Your task to perform on an android device: turn off data saver in the chrome app Image 0: 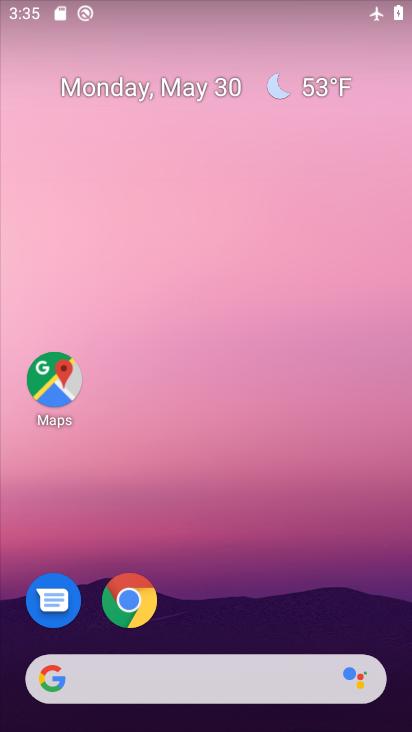
Step 0: drag from (238, 583) to (333, 24)
Your task to perform on an android device: turn off data saver in the chrome app Image 1: 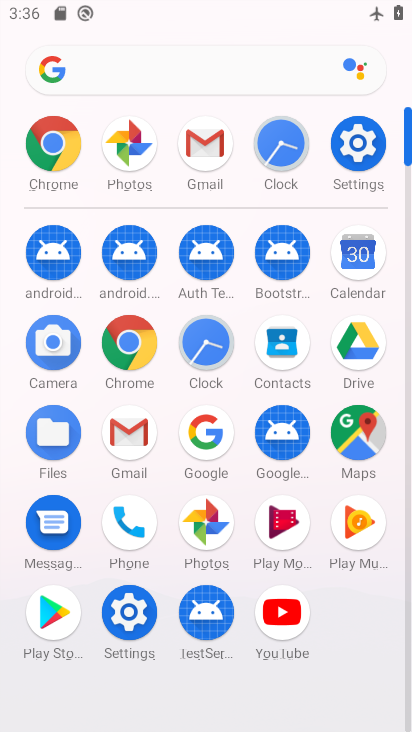
Step 1: click (43, 141)
Your task to perform on an android device: turn off data saver in the chrome app Image 2: 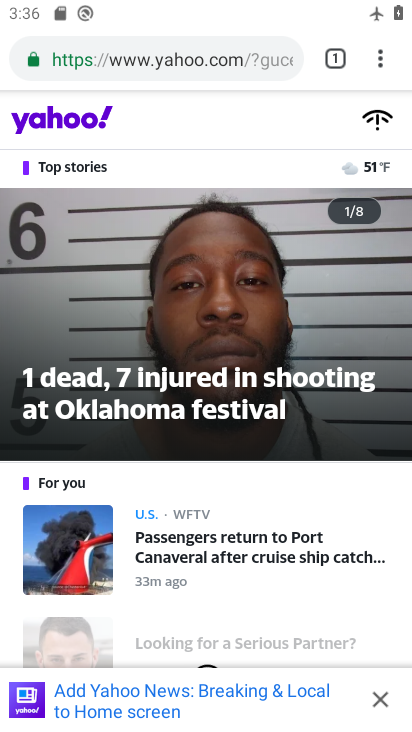
Step 2: drag from (382, 53) to (170, 649)
Your task to perform on an android device: turn off data saver in the chrome app Image 3: 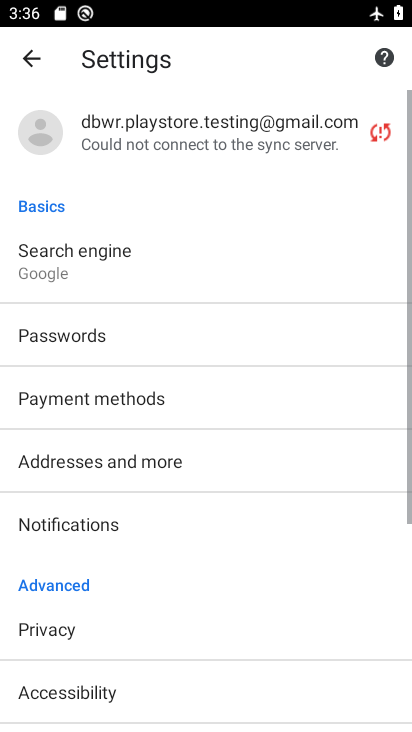
Step 3: drag from (165, 620) to (236, 286)
Your task to perform on an android device: turn off data saver in the chrome app Image 4: 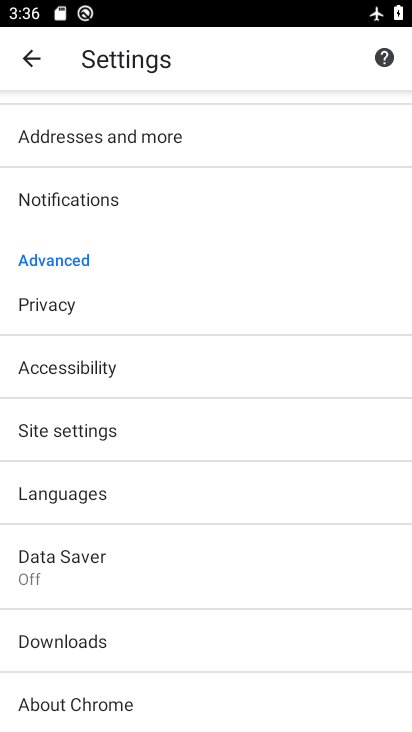
Step 4: drag from (155, 612) to (240, 300)
Your task to perform on an android device: turn off data saver in the chrome app Image 5: 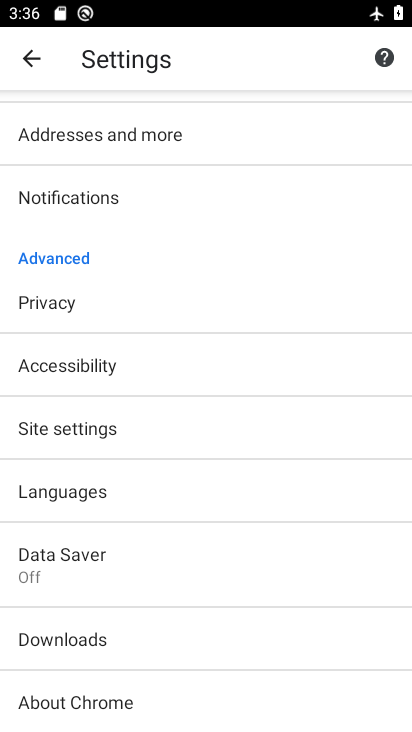
Step 5: click (87, 564)
Your task to perform on an android device: turn off data saver in the chrome app Image 6: 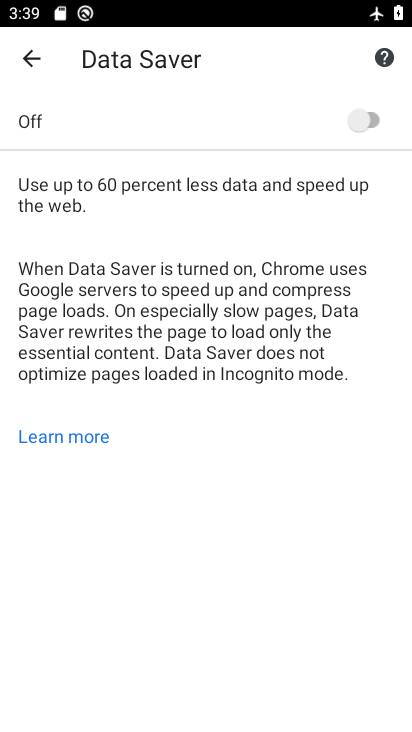
Step 6: press home button
Your task to perform on an android device: turn off data saver in the chrome app Image 7: 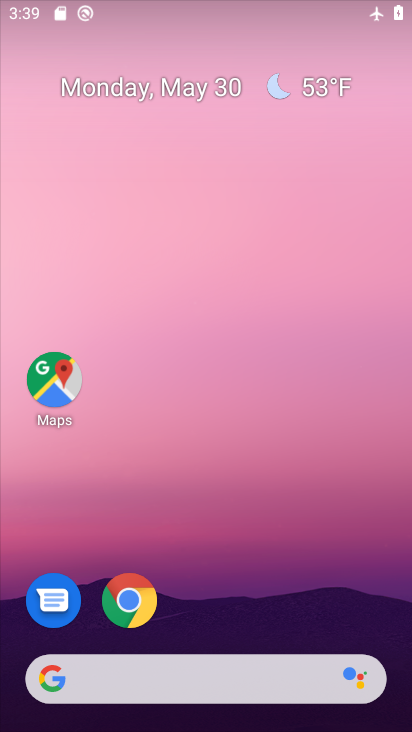
Step 7: drag from (304, 530) to (410, 62)
Your task to perform on an android device: turn off data saver in the chrome app Image 8: 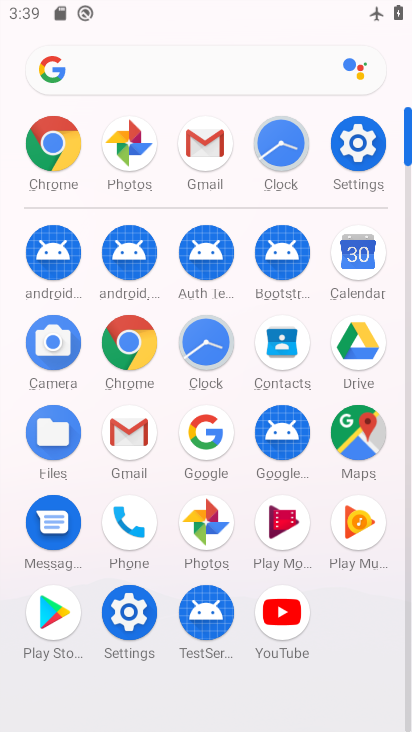
Step 8: click (57, 147)
Your task to perform on an android device: turn off data saver in the chrome app Image 9: 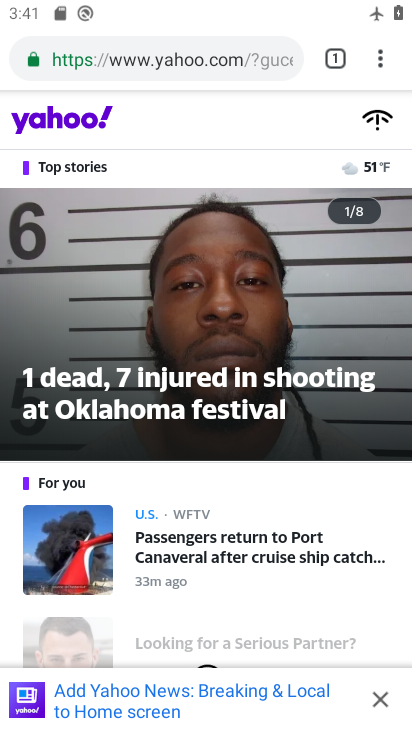
Step 9: task complete